Your task to perform on an android device: Search for seafood restaurants on Google Maps Image 0: 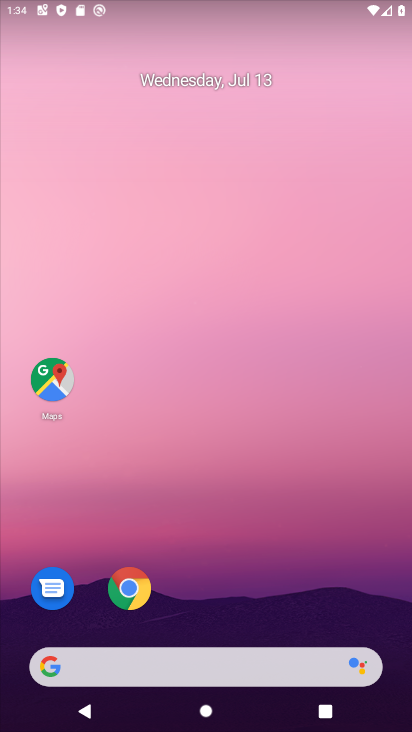
Step 0: click (54, 382)
Your task to perform on an android device: Search for seafood restaurants on Google Maps Image 1: 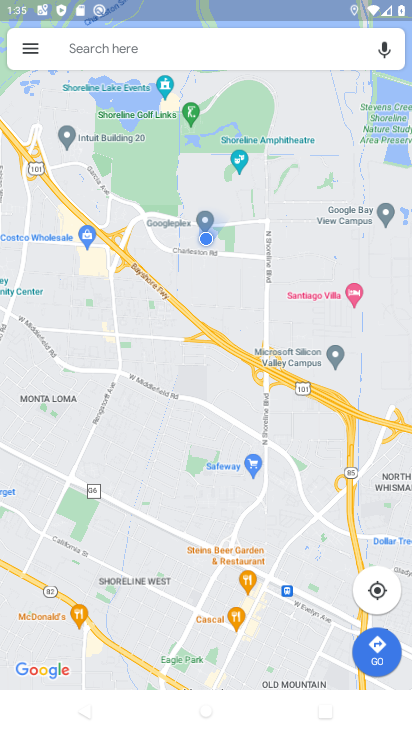
Step 1: click (73, 46)
Your task to perform on an android device: Search for seafood restaurants on Google Maps Image 2: 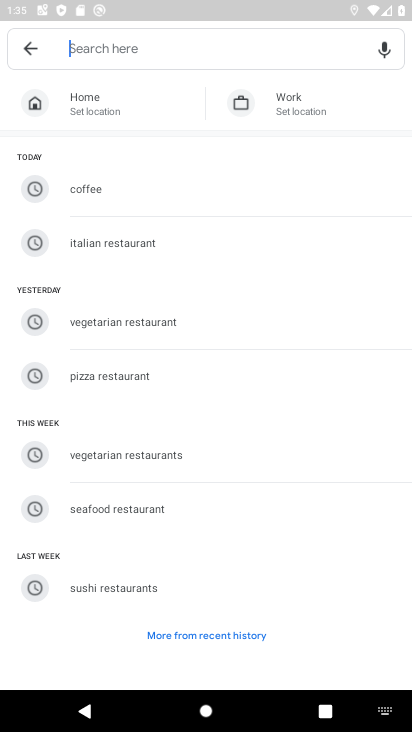
Step 2: click (108, 514)
Your task to perform on an android device: Search for seafood restaurants on Google Maps Image 3: 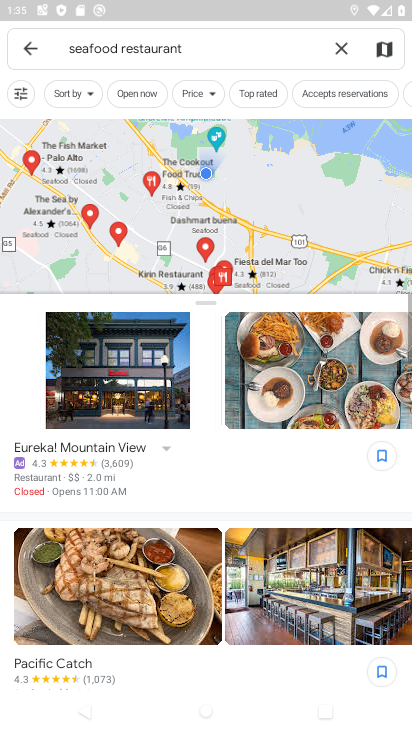
Step 3: task complete